Your task to perform on an android device: install app "Speedtest by Ookla" Image 0: 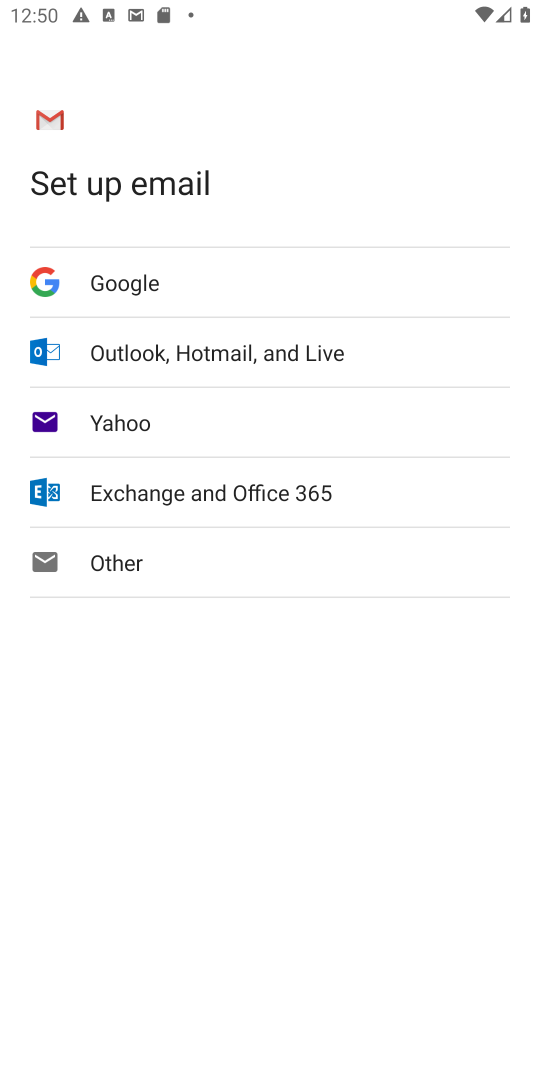
Step 0: press home button
Your task to perform on an android device: install app "Speedtest by Ookla" Image 1: 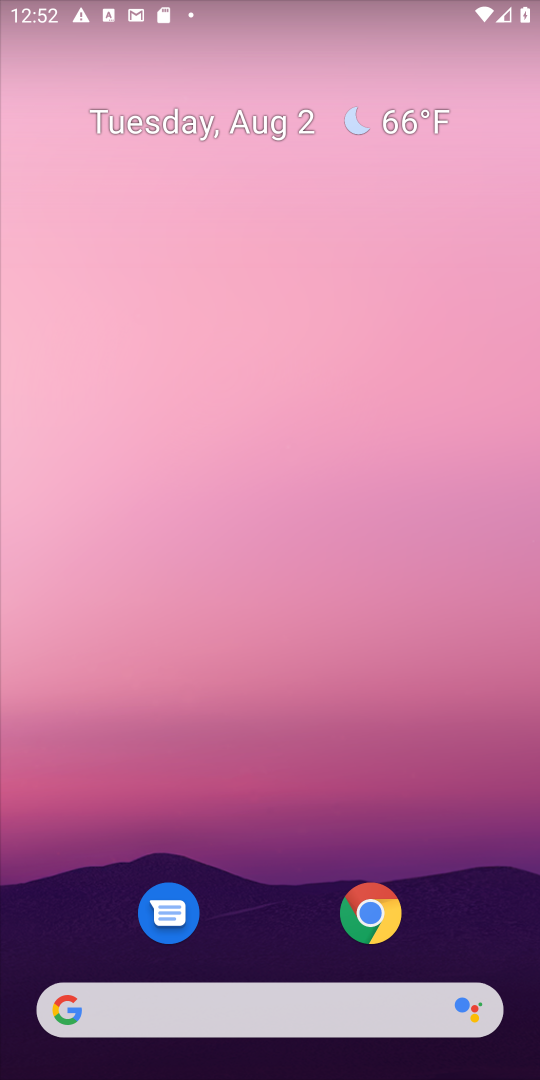
Step 1: drag from (509, 977) to (392, 326)
Your task to perform on an android device: install app "Speedtest by Ookla" Image 2: 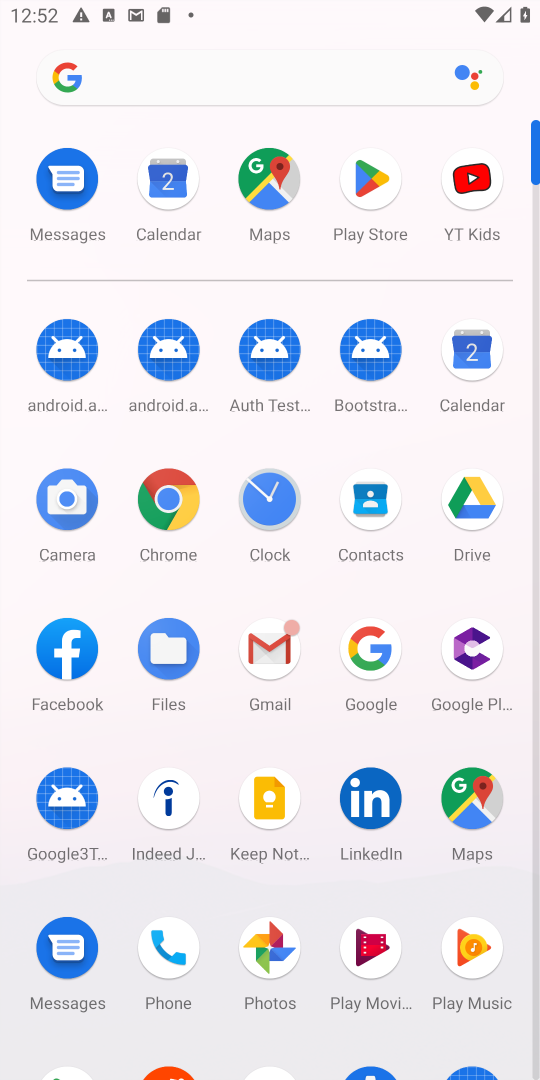
Step 2: click (363, 174)
Your task to perform on an android device: install app "Speedtest by Ookla" Image 3: 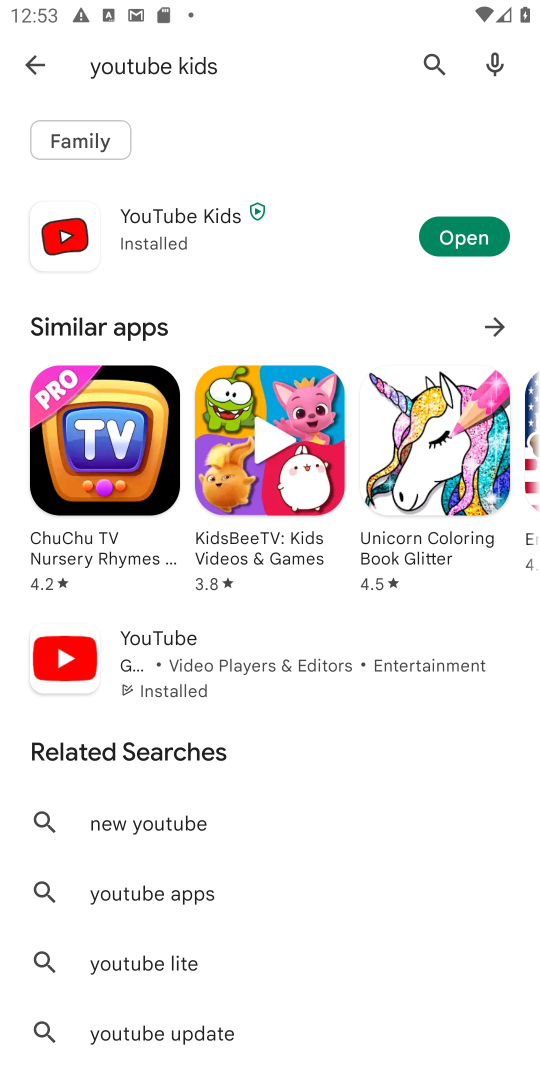
Step 3: click (434, 58)
Your task to perform on an android device: install app "Speedtest by Ookla" Image 4: 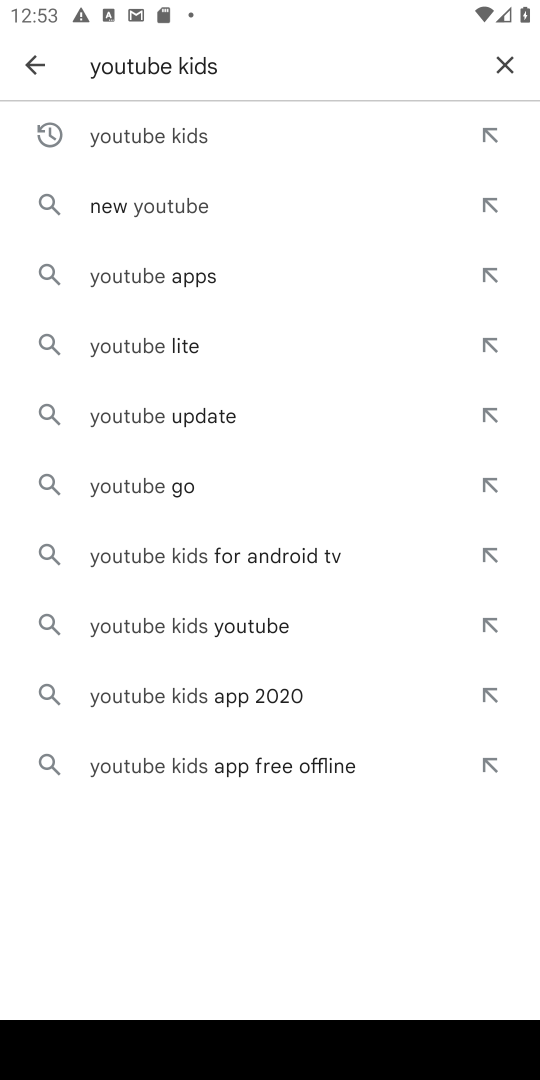
Step 4: click (500, 58)
Your task to perform on an android device: install app "Speedtest by Ookla" Image 5: 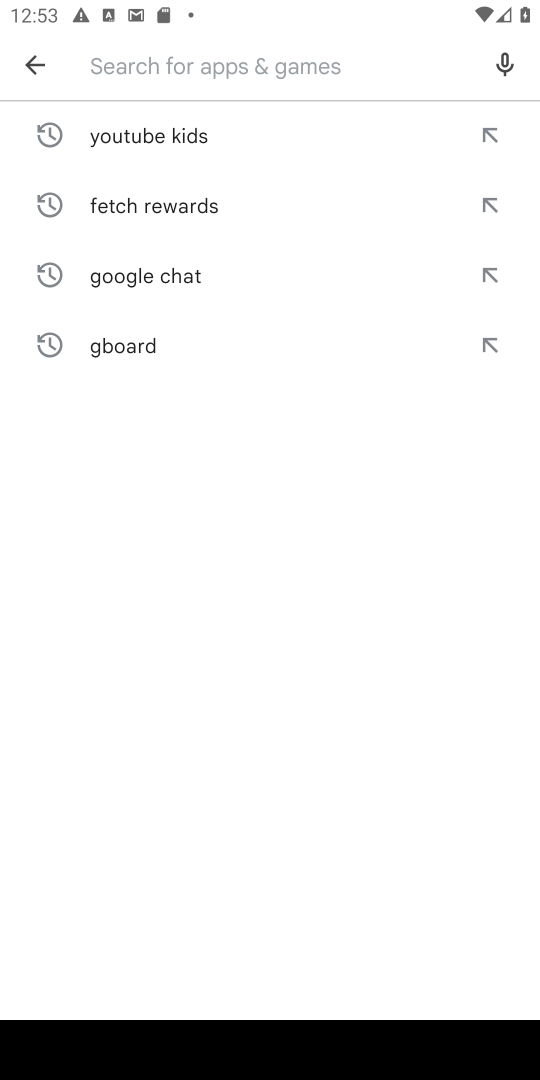
Step 5: type "Speedtest by Ookla"
Your task to perform on an android device: install app "Speedtest by Ookla" Image 6: 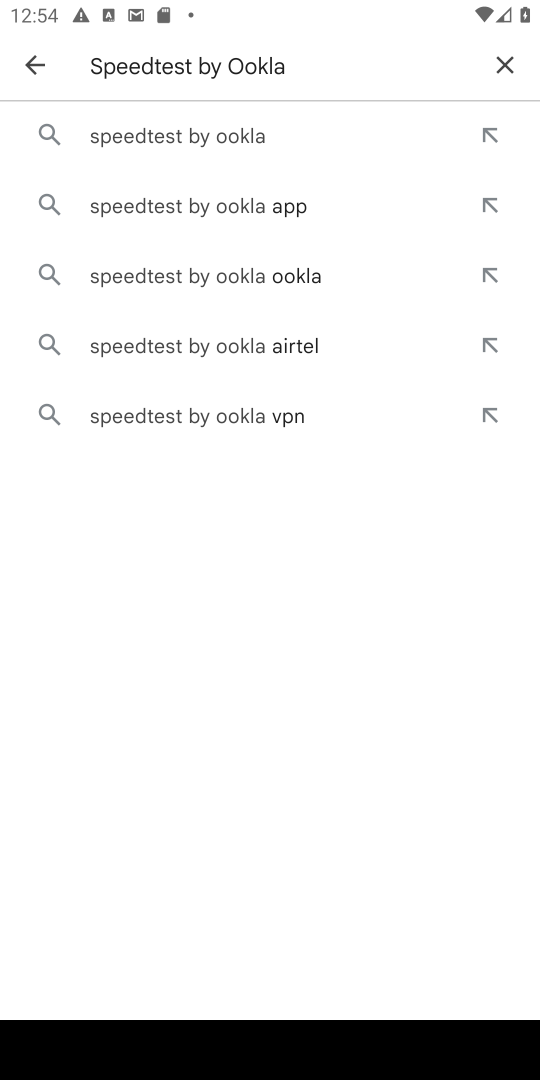
Step 6: click (182, 131)
Your task to perform on an android device: install app "Speedtest by Ookla" Image 7: 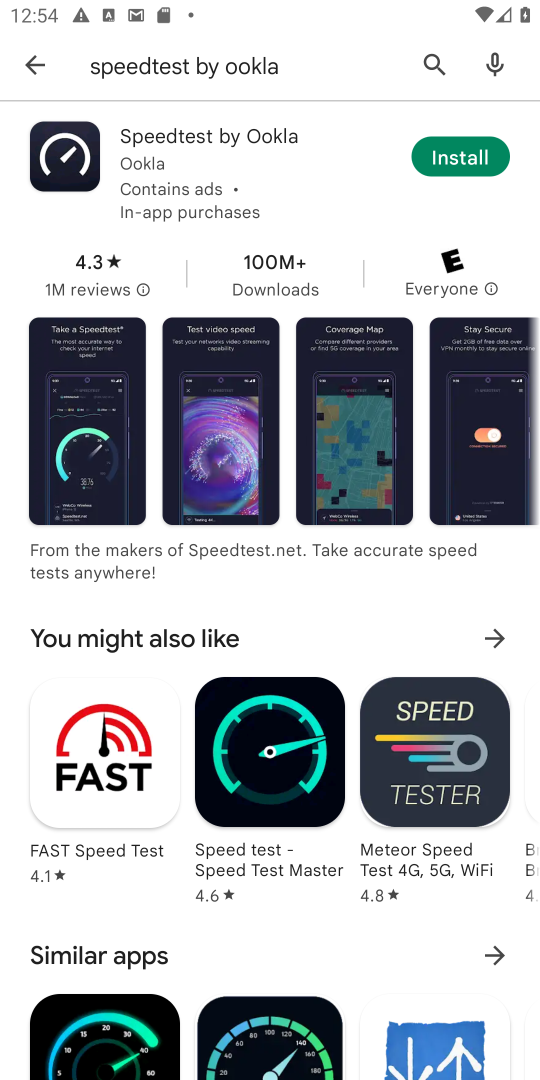
Step 7: click (469, 154)
Your task to perform on an android device: install app "Speedtest by Ookla" Image 8: 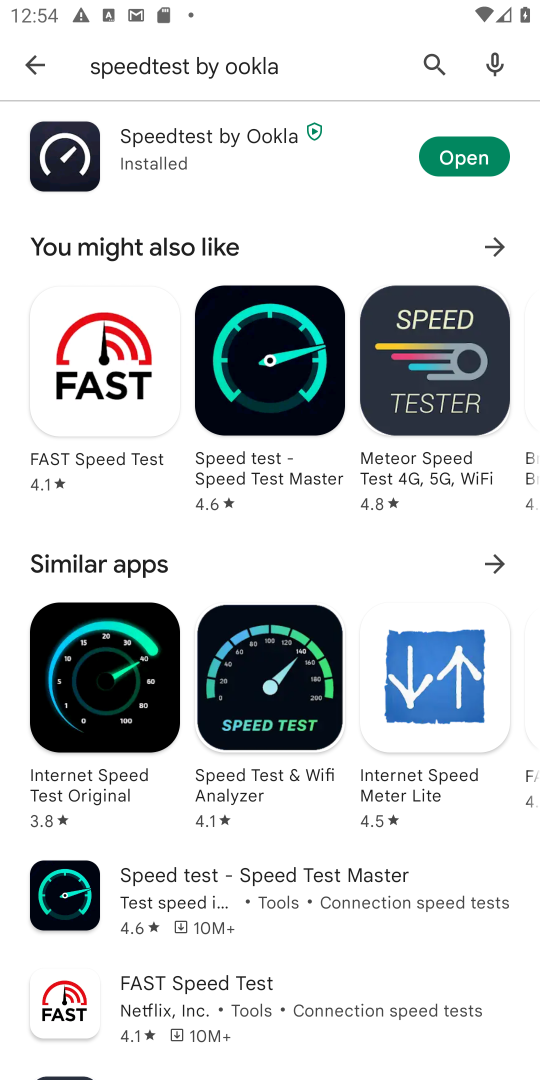
Step 8: task complete